Your task to perform on an android device: turn off translation in the chrome app Image 0: 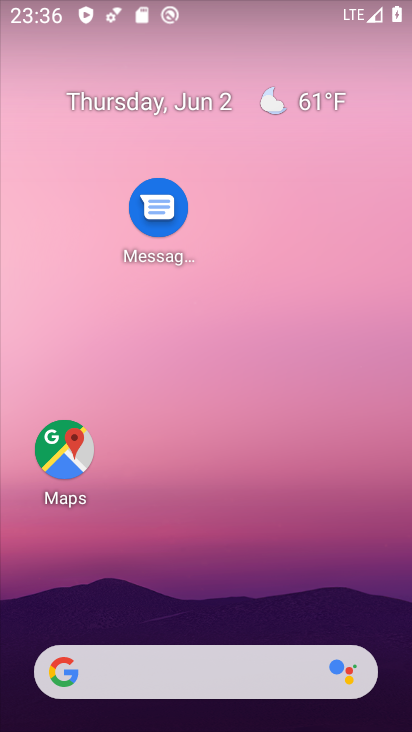
Step 0: drag from (284, 641) to (286, 6)
Your task to perform on an android device: turn off translation in the chrome app Image 1: 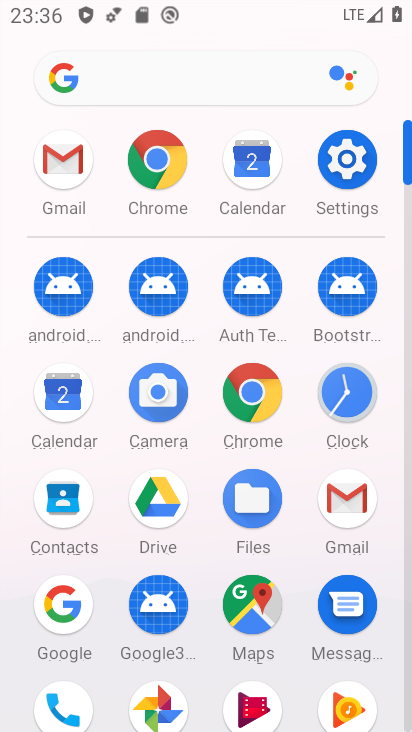
Step 1: click (248, 395)
Your task to perform on an android device: turn off translation in the chrome app Image 2: 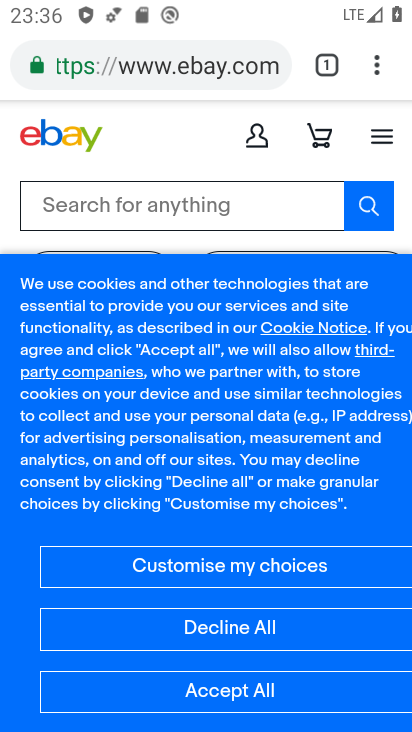
Step 2: click (375, 67)
Your task to perform on an android device: turn off translation in the chrome app Image 3: 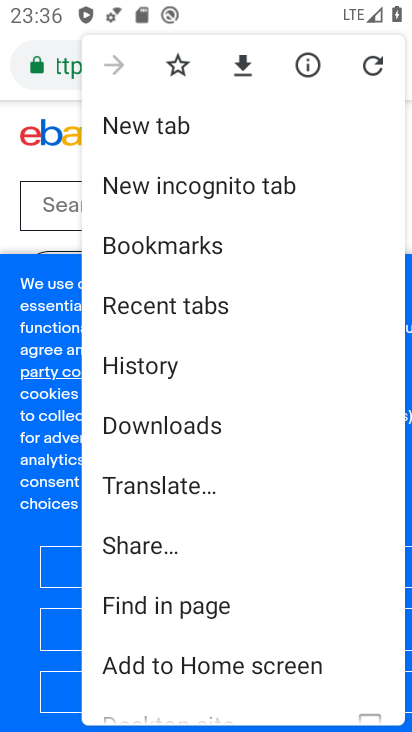
Step 3: drag from (220, 585) to (227, 78)
Your task to perform on an android device: turn off translation in the chrome app Image 4: 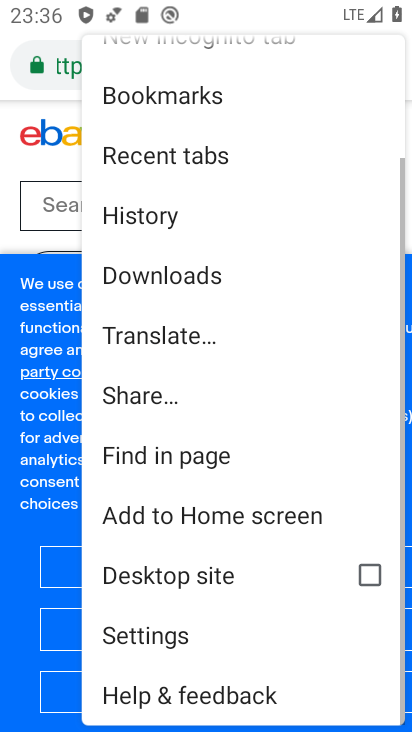
Step 4: click (151, 623)
Your task to perform on an android device: turn off translation in the chrome app Image 5: 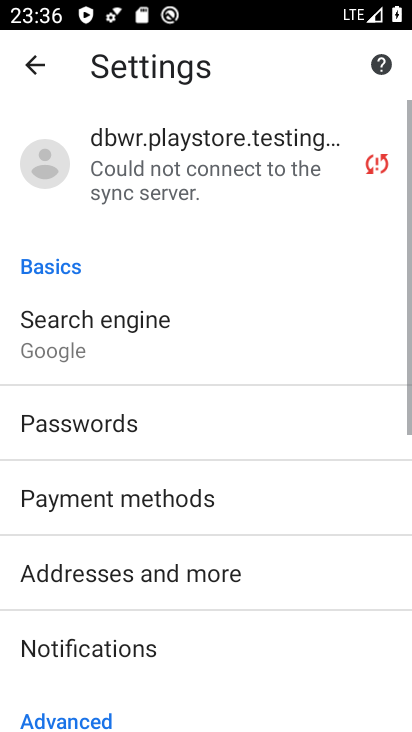
Step 5: drag from (150, 623) to (100, 102)
Your task to perform on an android device: turn off translation in the chrome app Image 6: 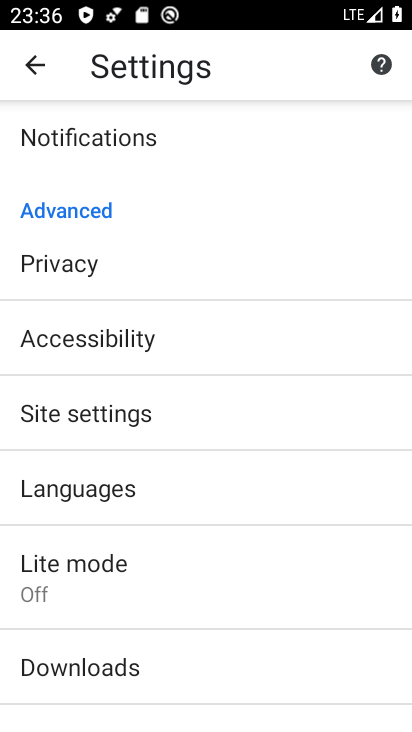
Step 6: drag from (98, 564) to (98, 307)
Your task to perform on an android device: turn off translation in the chrome app Image 7: 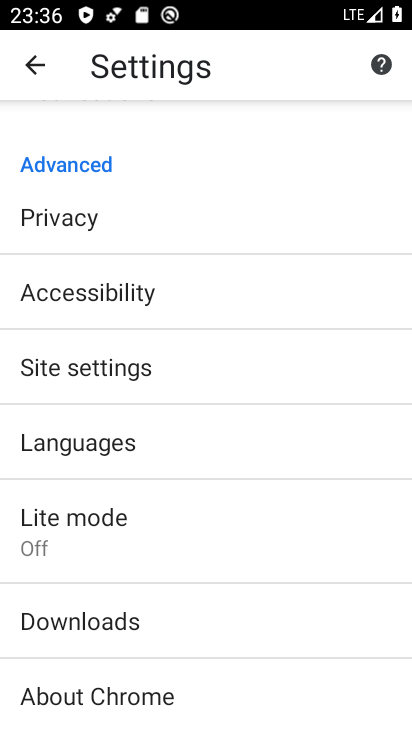
Step 7: click (68, 421)
Your task to perform on an android device: turn off translation in the chrome app Image 8: 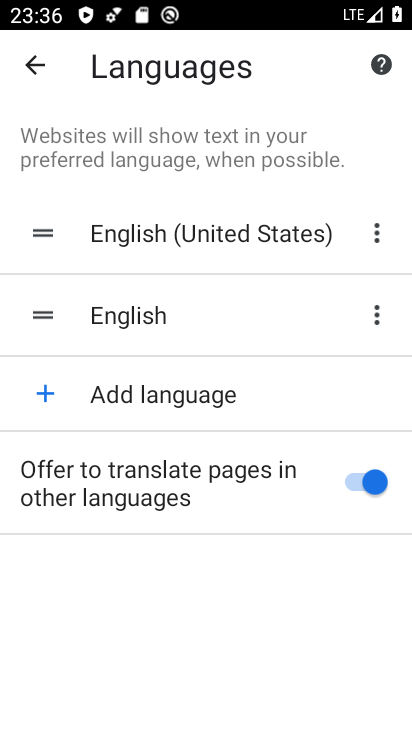
Step 8: click (334, 481)
Your task to perform on an android device: turn off translation in the chrome app Image 9: 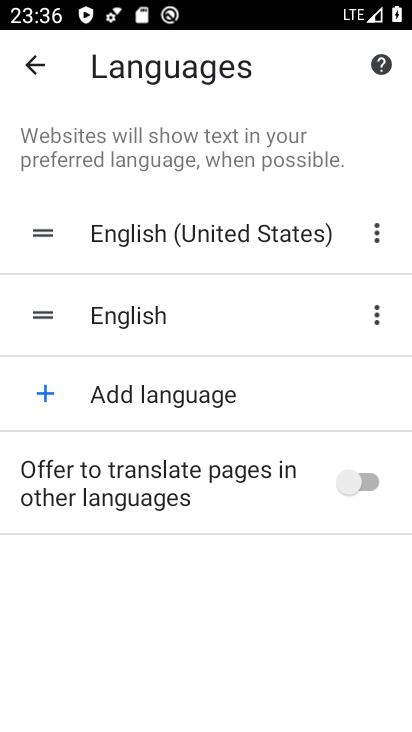
Step 9: task complete